Your task to perform on an android device: Go to eBay Image 0: 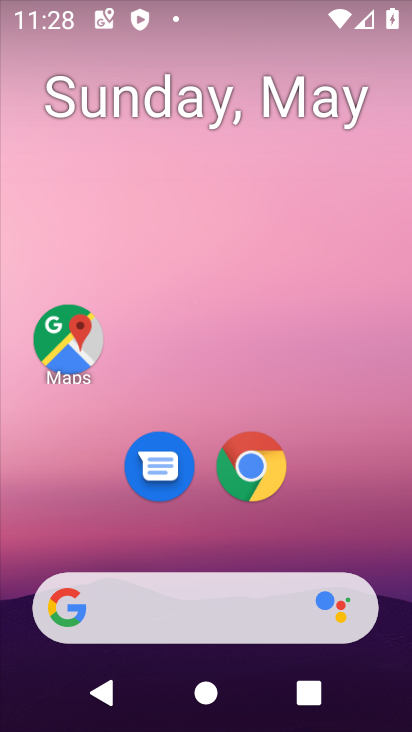
Step 0: drag from (396, 616) to (243, 47)
Your task to perform on an android device: Go to eBay Image 1: 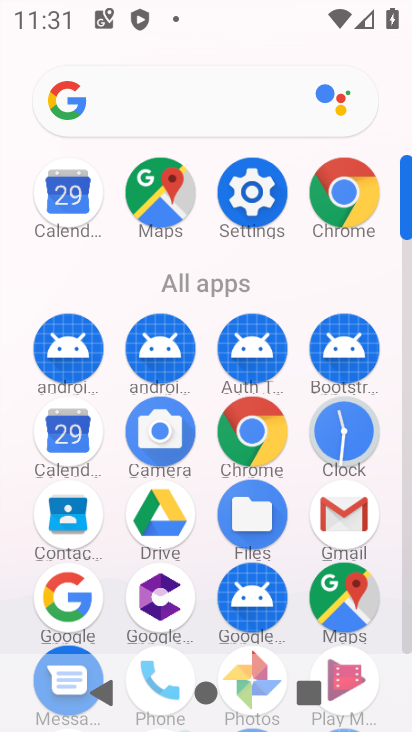
Step 1: click (75, 611)
Your task to perform on an android device: Go to eBay Image 2: 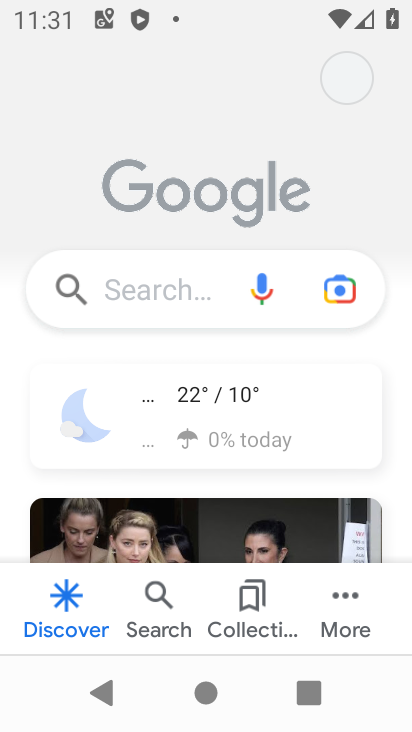
Step 2: click (153, 304)
Your task to perform on an android device: Go to eBay Image 3: 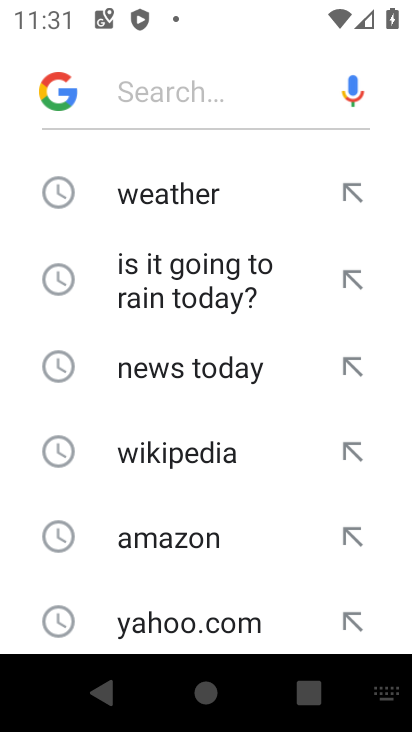
Step 3: drag from (157, 573) to (207, 179)
Your task to perform on an android device: Go to eBay Image 4: 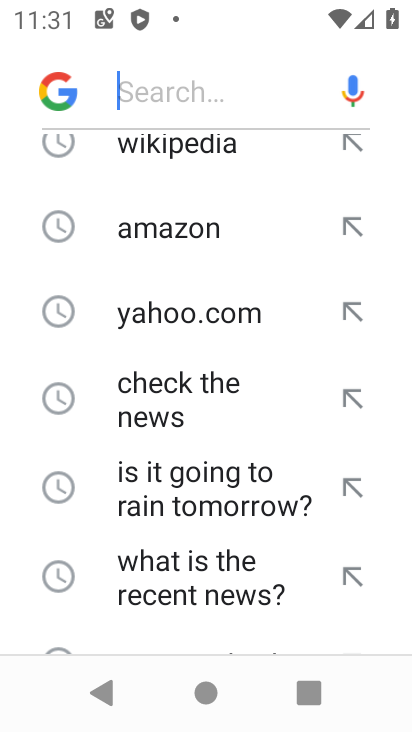
Step 4: drag from (196, 588) to (222, 20)
Your task to perform on an android device: Go to eBay Image 5: 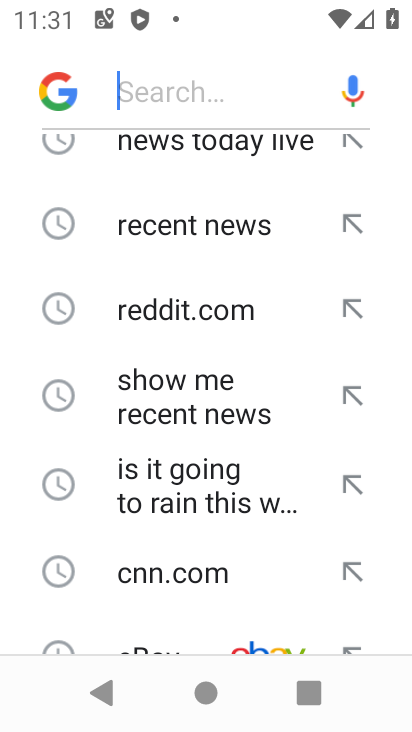
Step 5: click (261, 641)
Your task to perform on an android device: Go to eBay Image 6: 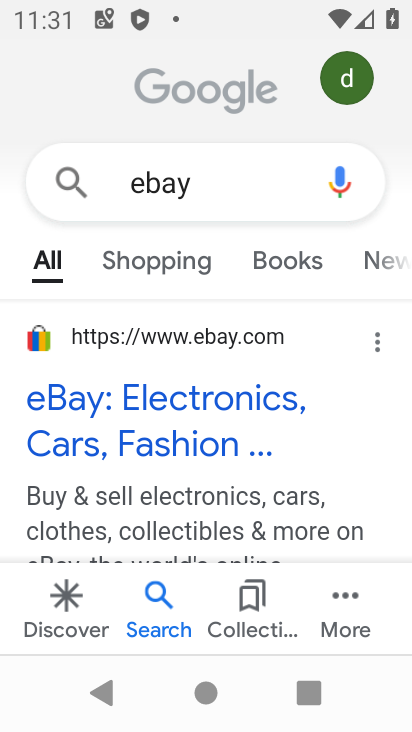
Step 6: task complete